Your task to perform on an android device: Go to Wikipedia Image 0: 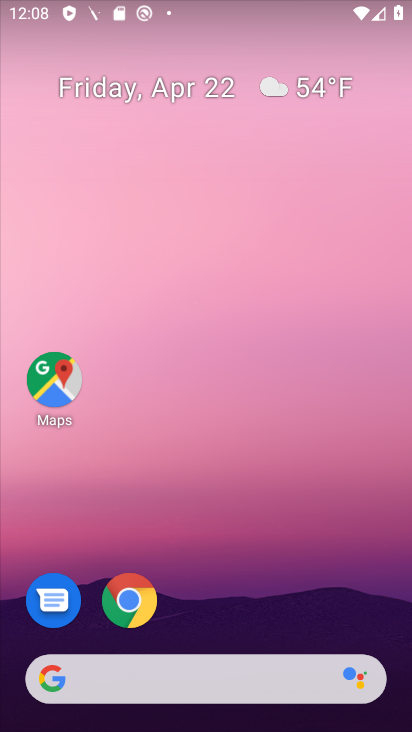
Step 0: click (134, 593)
Your task to perform on an android device: Go to Wikipedia Image 1: 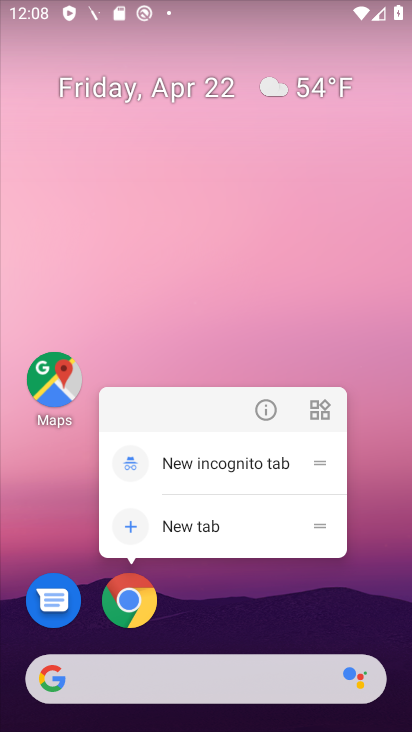
Step 1: click (134, 593)
Your task to perform on an android device: Go to Wikipedia Image 2: 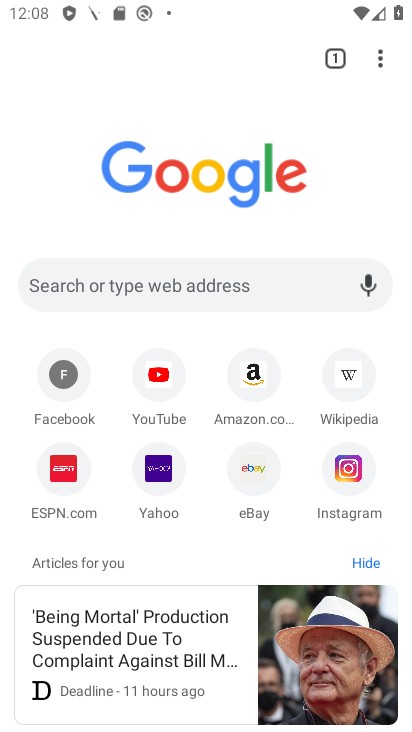
Step 2: click (241, 287)
Your task to perform on an android device: Go to Wikipedia Image 3: 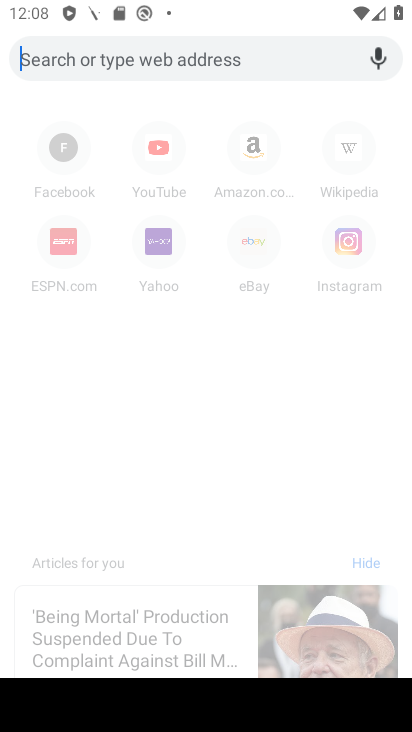
Step 3: type "Wikipedia"
Your task to perform on an android device: Go to Wikipedia Image 4: 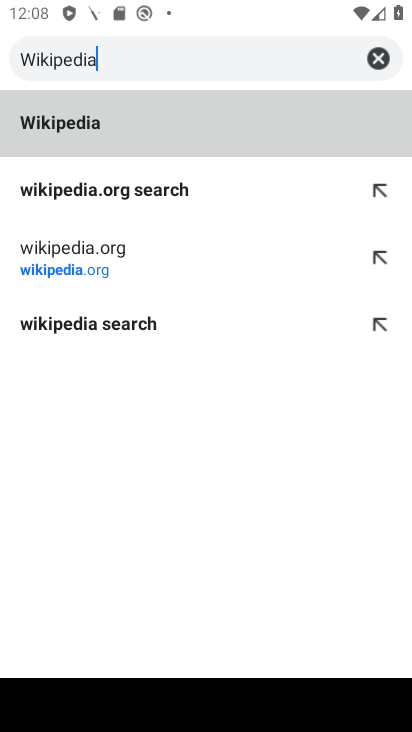
Step 4: click (70, 131)
Your task to perform on an android device: Go to Wikipedia Image 5: 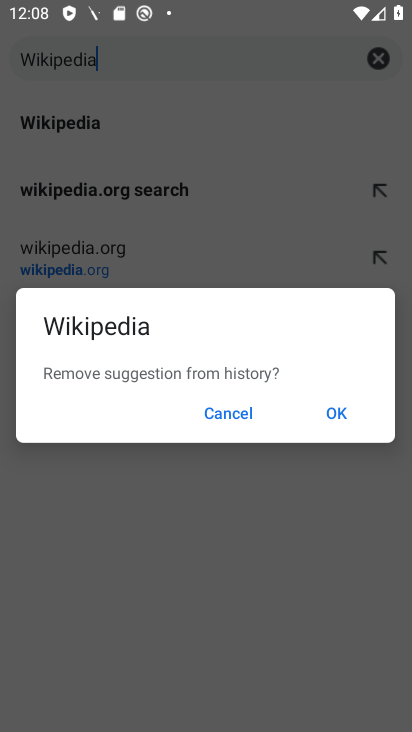
Step 5: click (340, 412)
Your task to perform on an android device: Go to Wikipedia Image 6: 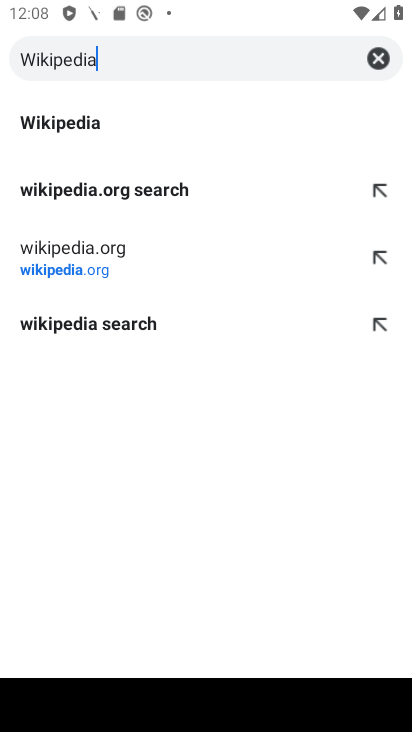
Step 6: click (57, 119)
Your task to perform on an android device: Go to Wikipedia Image 7: 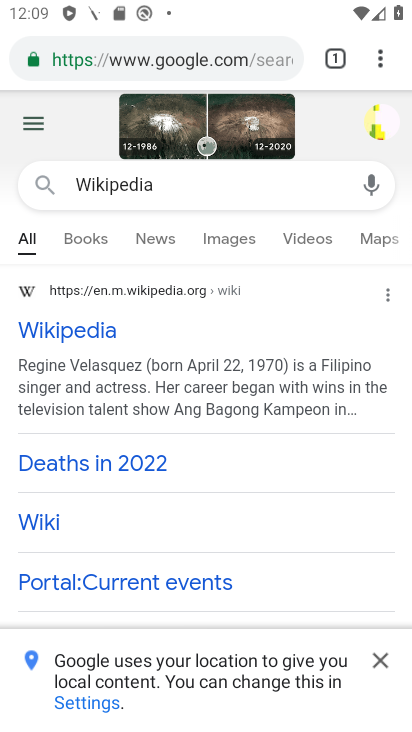
Step 7: task complete